Your task to perform on an android device: move an email to a new category in the gmail app Image 0: 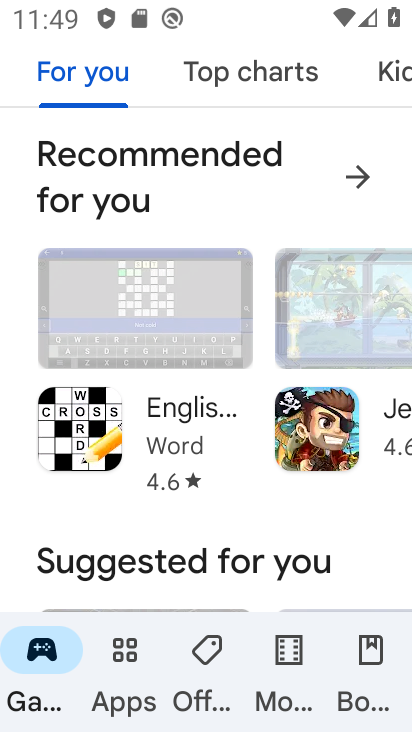
Step 0: press home button
Your task to perform on an android device: move an email to a new category in the gmail app Image 1: 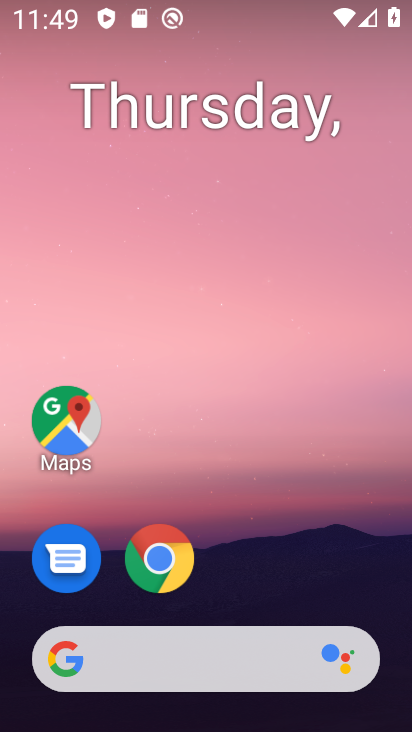
Step 1: drag from (373, 560) to (382, 104)
Your task to perform on an android device: move an email to a new category in the gmail app Image 2: 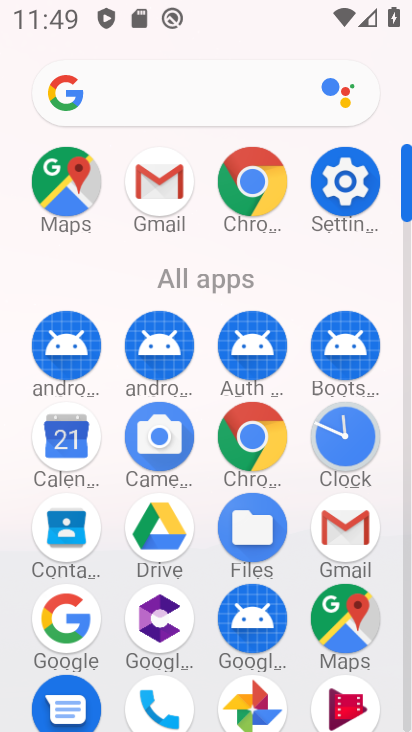
Step 2: click (349, 530)
Your task to perform on an android device: move an email to a new category in the gmail app Image 3: 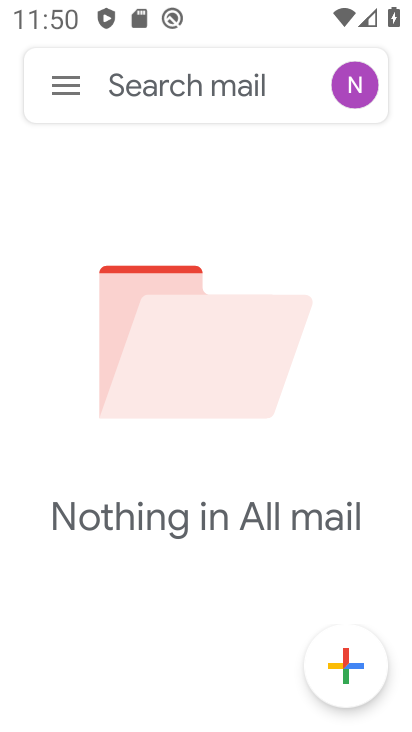
Step 3: task complete